Your task to perform on an android device: toggle data saver in the chrome app Image 0: 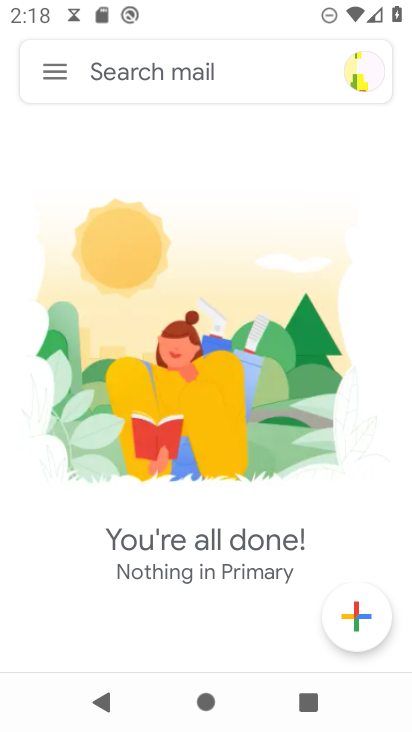
Step 0: press home button
Your task to perform on an android device: toggle data saver in the chrome app Image 1: 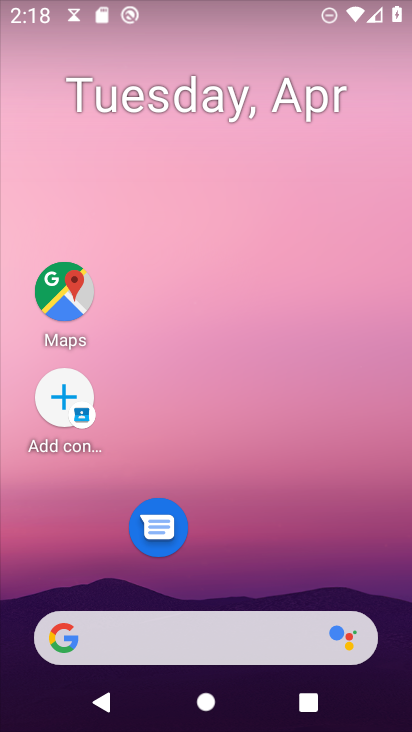
Step 1: drag from (236, 576) to (231, 134)
Your task to perform on an android device: toggle data saver in the chrome app Image 2: 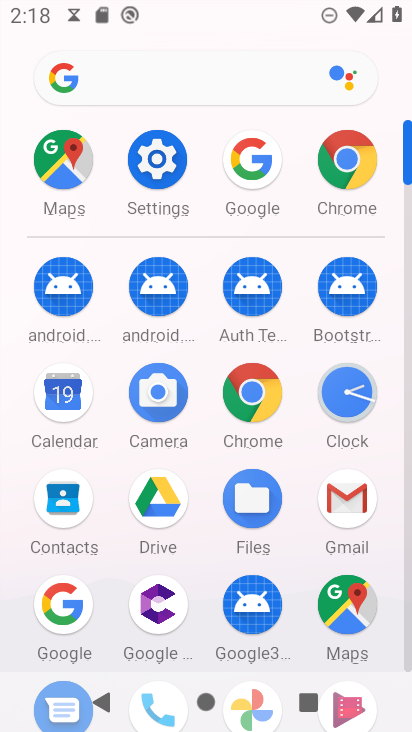
Step 2: click (353, 158)
Your task to perform on an android device: toggle data saver in the chrome app Image 3: 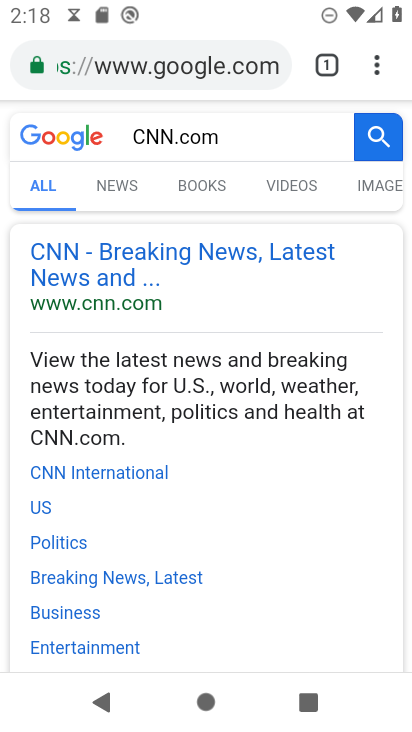
Step 3: click (383, 66)
Your task to perform on an android device: toggle data saver in the chrome app Image 4: 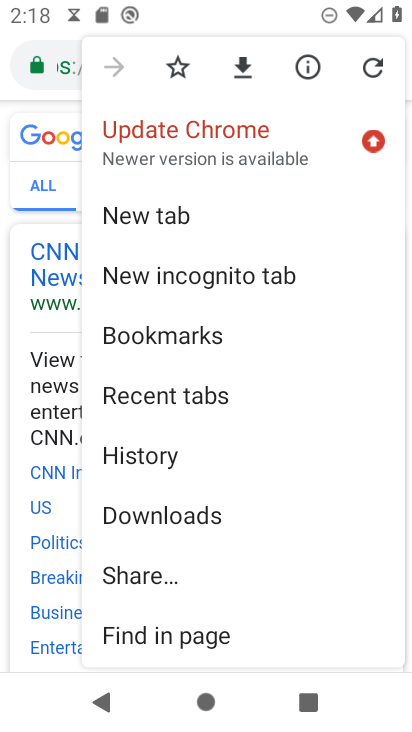
Step 4: drag from (201, 593) to (228, 451)
Your task to perform on an android device: toggle data saver in the chrome app Image 5: 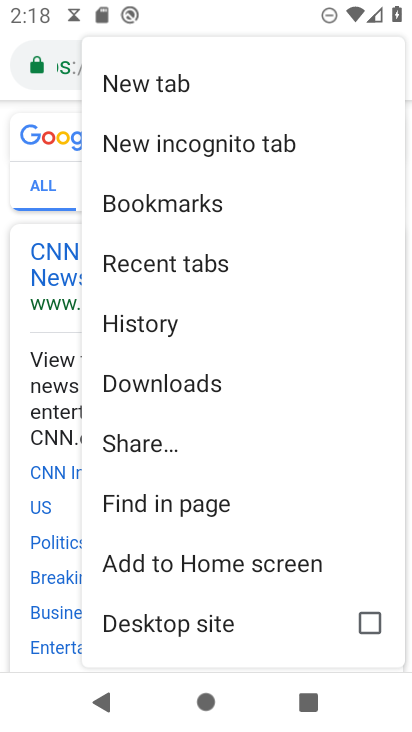
Step 5: drag from (224, 458) to (239, 353)
Your task to perform on an android device: toggle data saver in the chrome app Image 6: 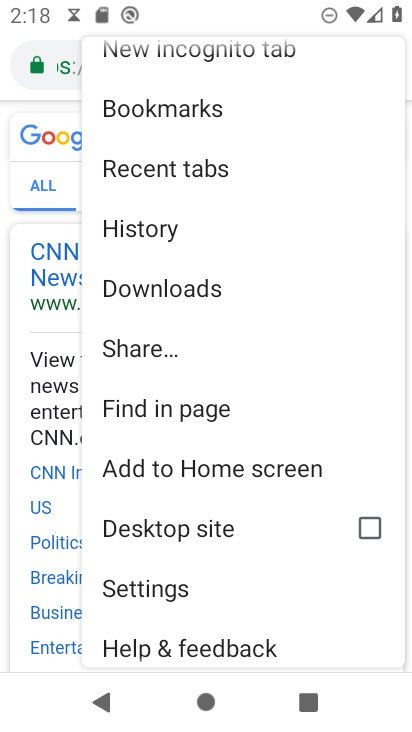
Step 6: click (169, 592)
Your task to perform on an android device: toggle data saver in the chrome app Image 7: 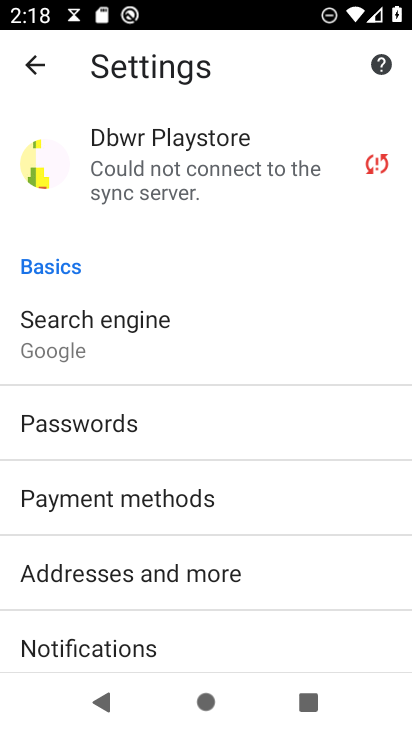
Step 7: drag from (245, 570) to (278, 404)
Your task to perform on an android device: toggle data saver in the chrome app Image 8: 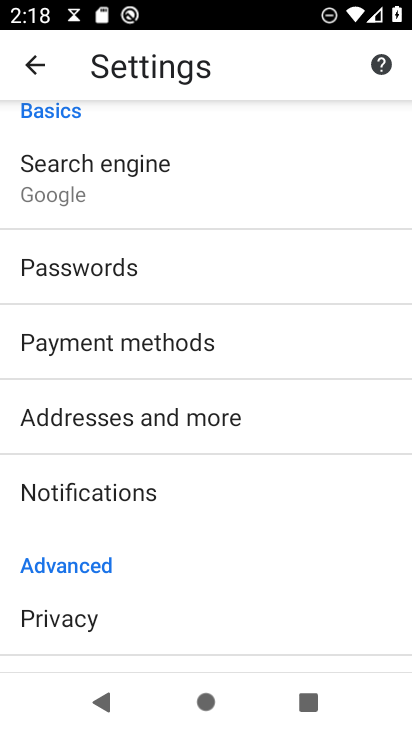
Step 8: drag from (220, 508) to (239, 382)
Your task to perform on an android device: toggle data saver in the chrome app Image 9: 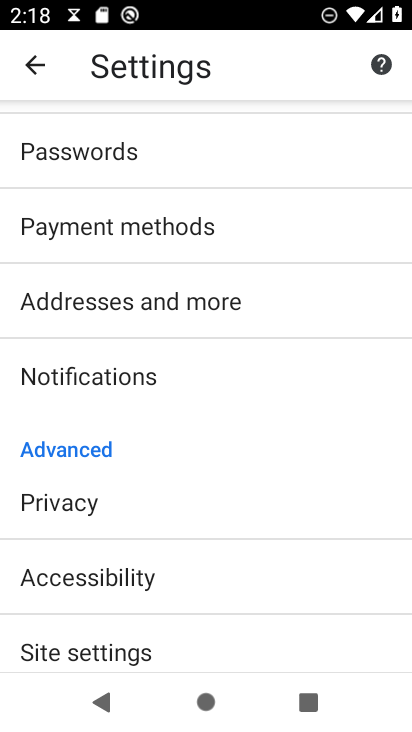
Step 9: drag from (183, 502) to (171, 390)
Your task to perform on an android device: toggle data saver in the chrome app Image 10: 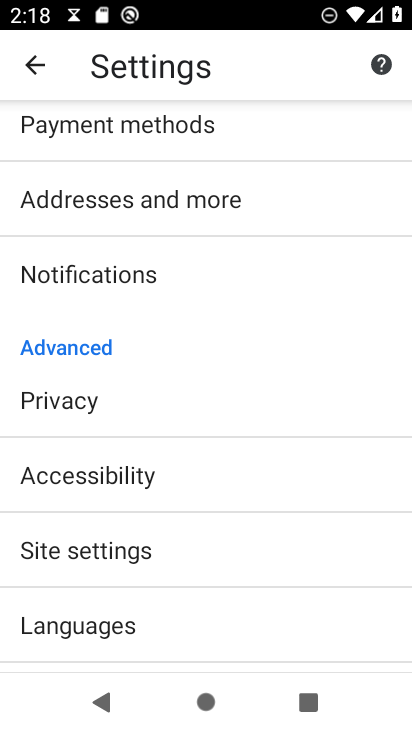
Step 10: drag from (178, 514) to (203, 418)
Your task to perform on an android device: toggle data saver in the chrome app Image 11: 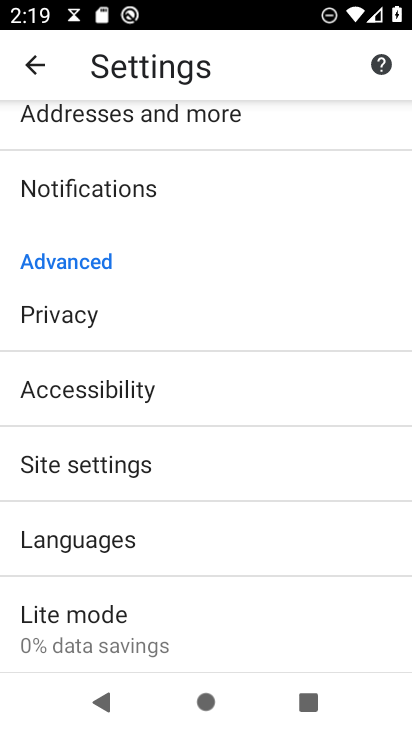
Step 11: click (67, 620)
Your task to perform on an android device: toggle data saver in the chrome app Image 12: 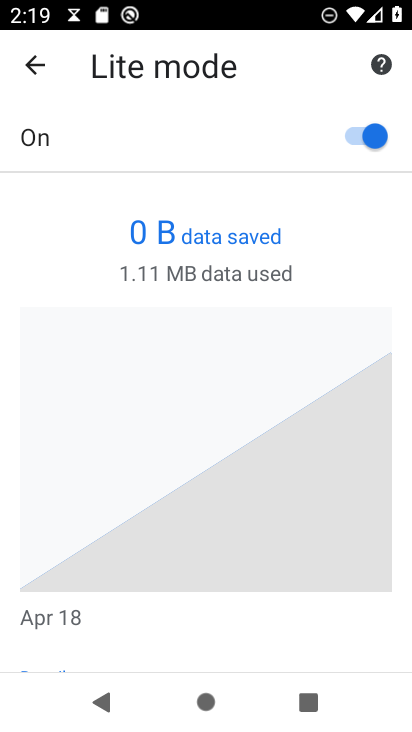
Step 12: click (376, 137)
Your task to perform on an android device: toggle data saver in the chrome app Image 13: 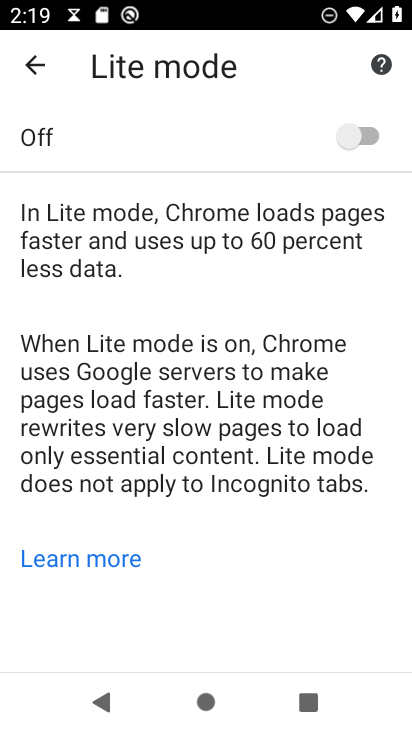
Step 13: task complete